Your task to perform on an android device: open app "Paramount+ | Peak Streaming" Image 0: 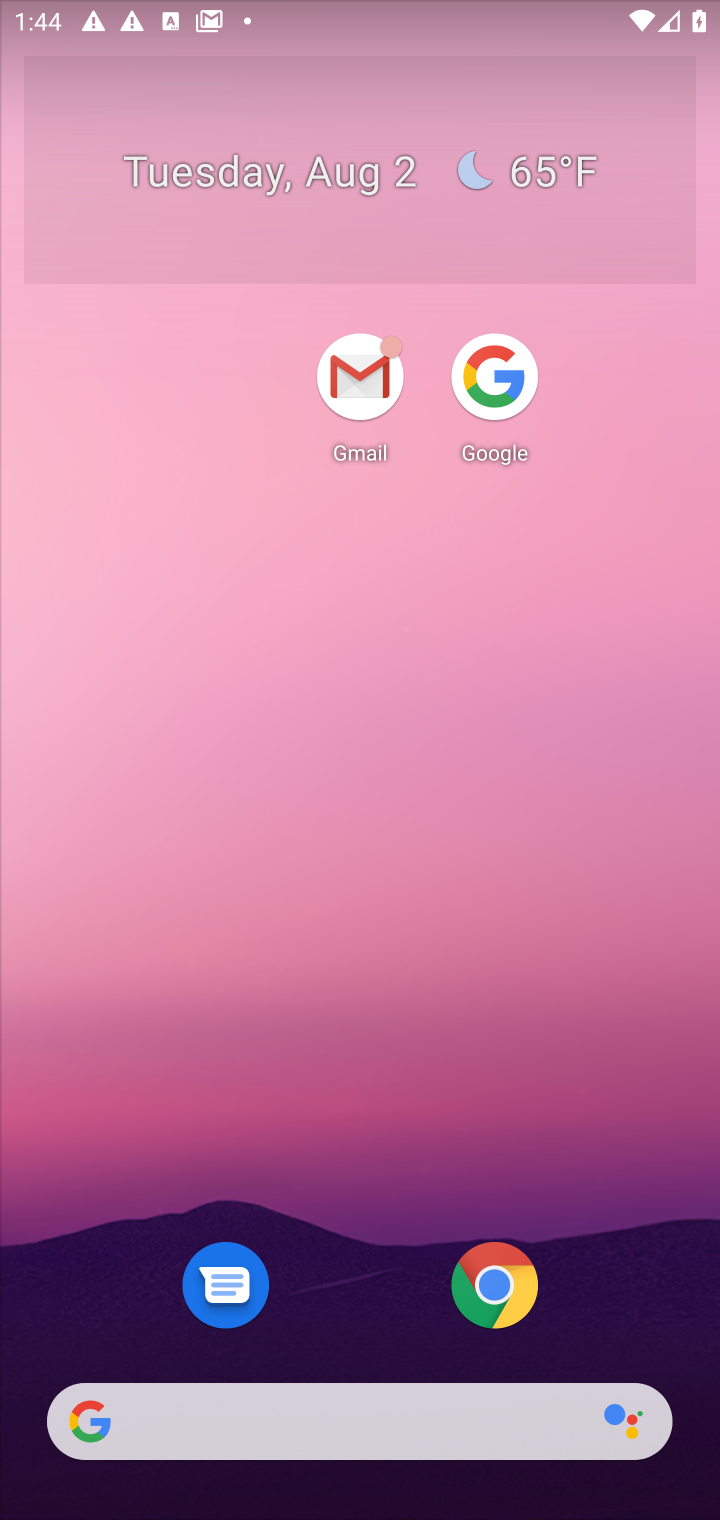
Step 0: drag from (560, 344) to (560, 2)
Your task to perform on an android device: open app "Paramount+ | Peak Streaming" Image 1: 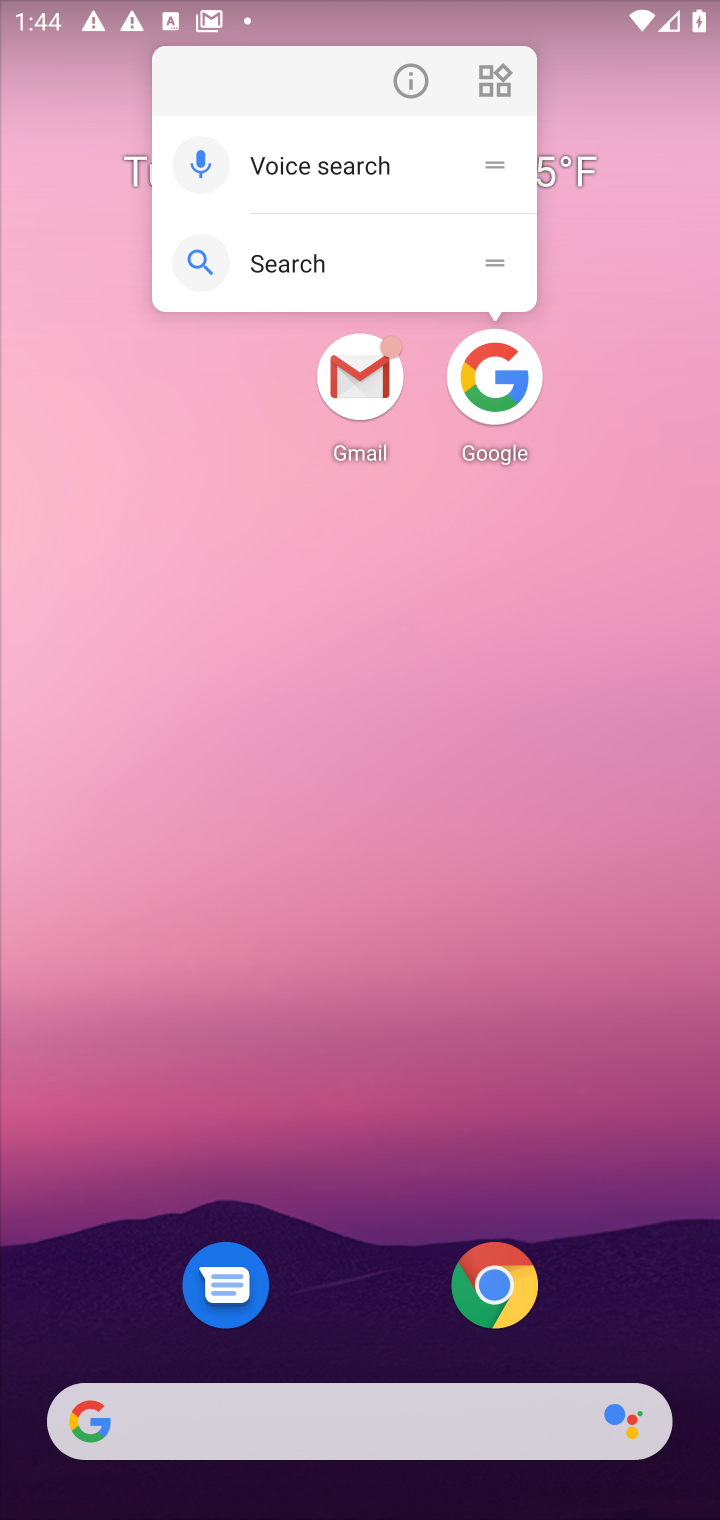
Step 1: click (539, 1028)
Your task to perform on an android device: open app "Paramount+ | Peak Streaming" Image 2: 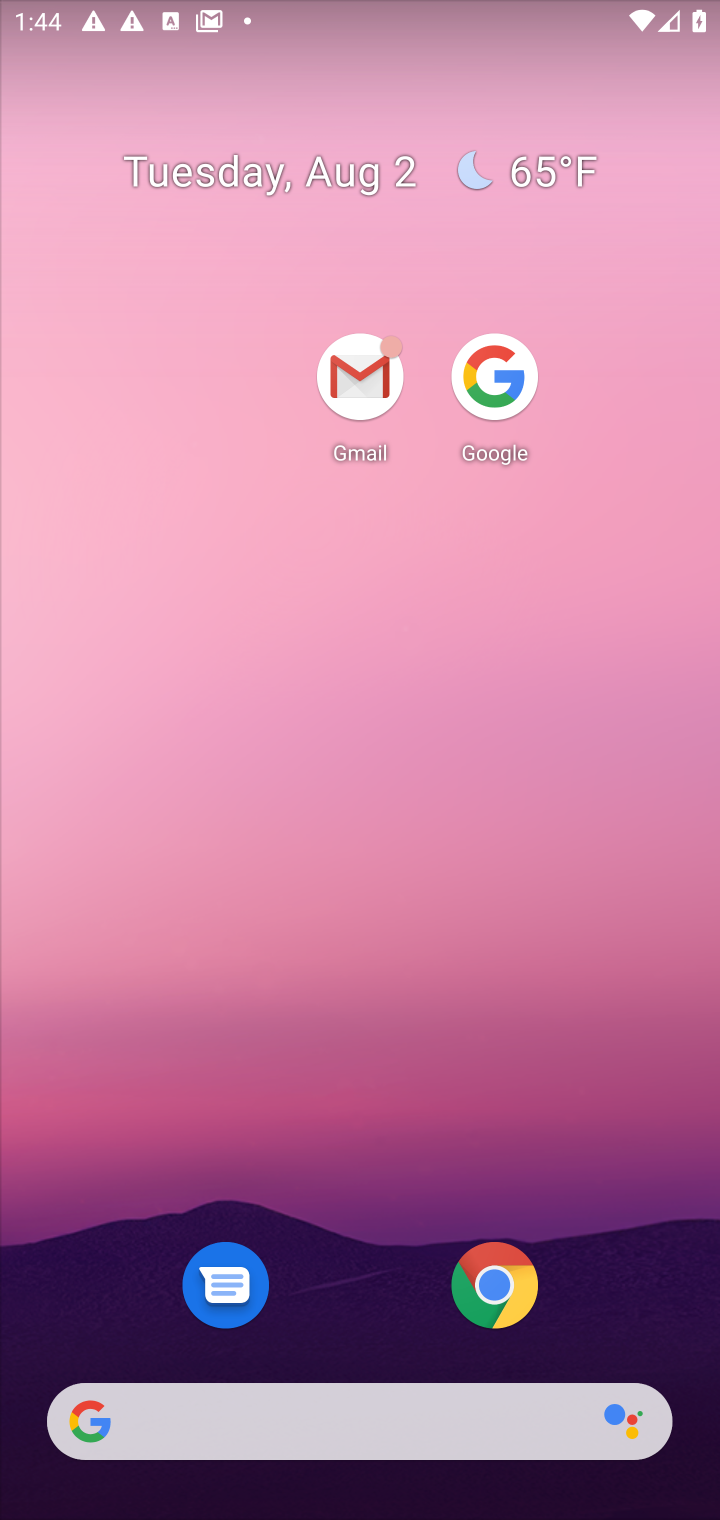
Step 2: drag from (542, 1178) to (596, 166)
Your task to perform on an android device: open app "Paramount+ | Peak Streaming" Image 3: 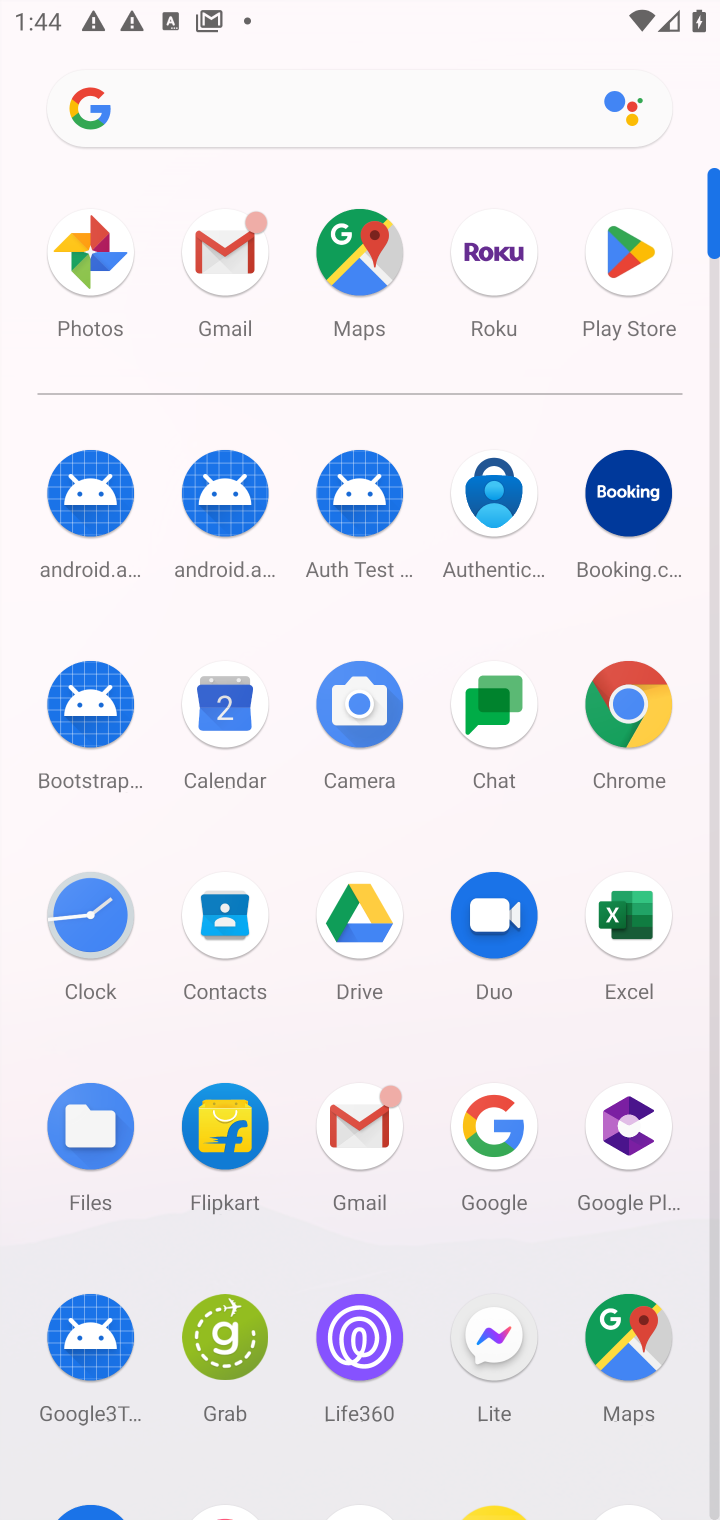
Step 3: drag from (421, 1216) to (469, 514)
Your task to perform on an android device: open app "Paramount+ | Peak Streaming" Image 4: 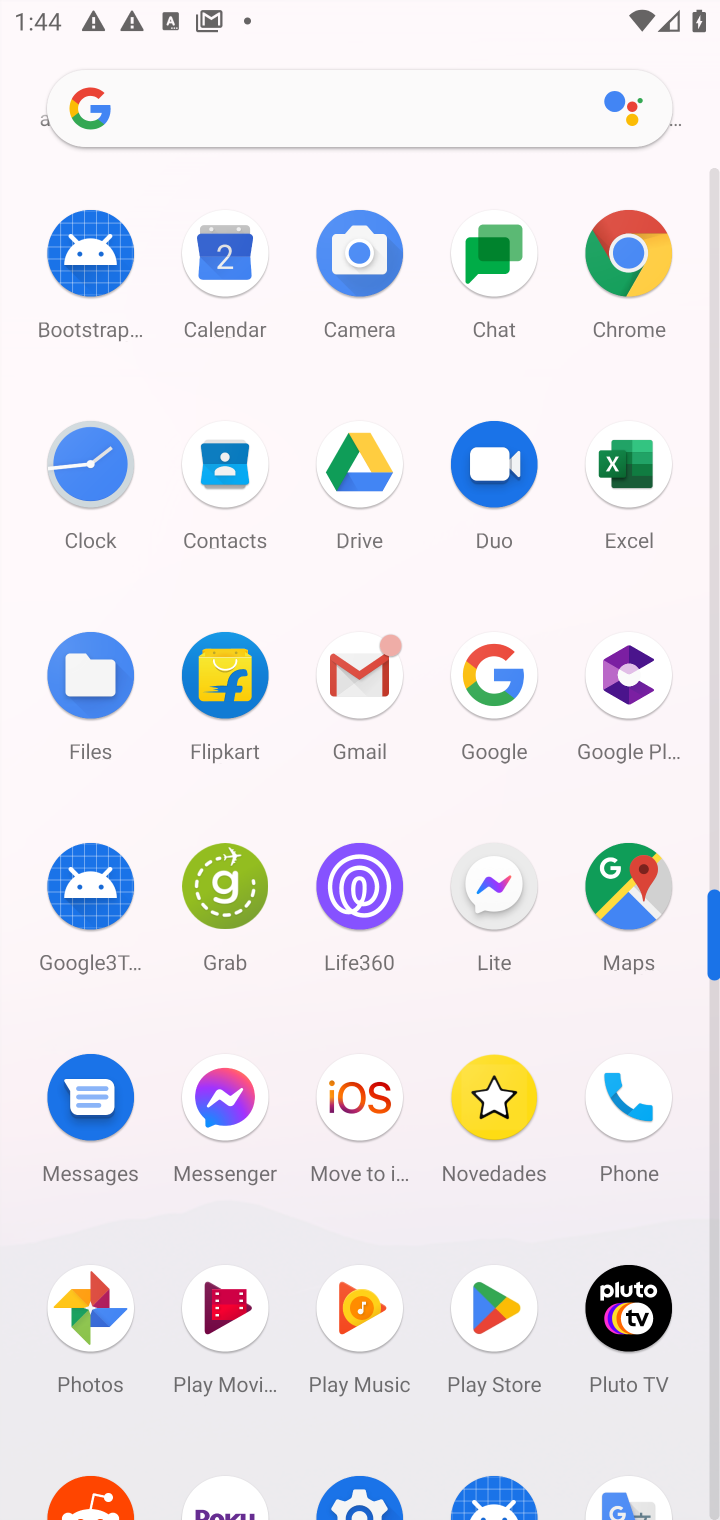
Step 4: click (499, 1319)
Your task to perform on an android device: open app "Paramount+ | Peak Streaming" Image 5: 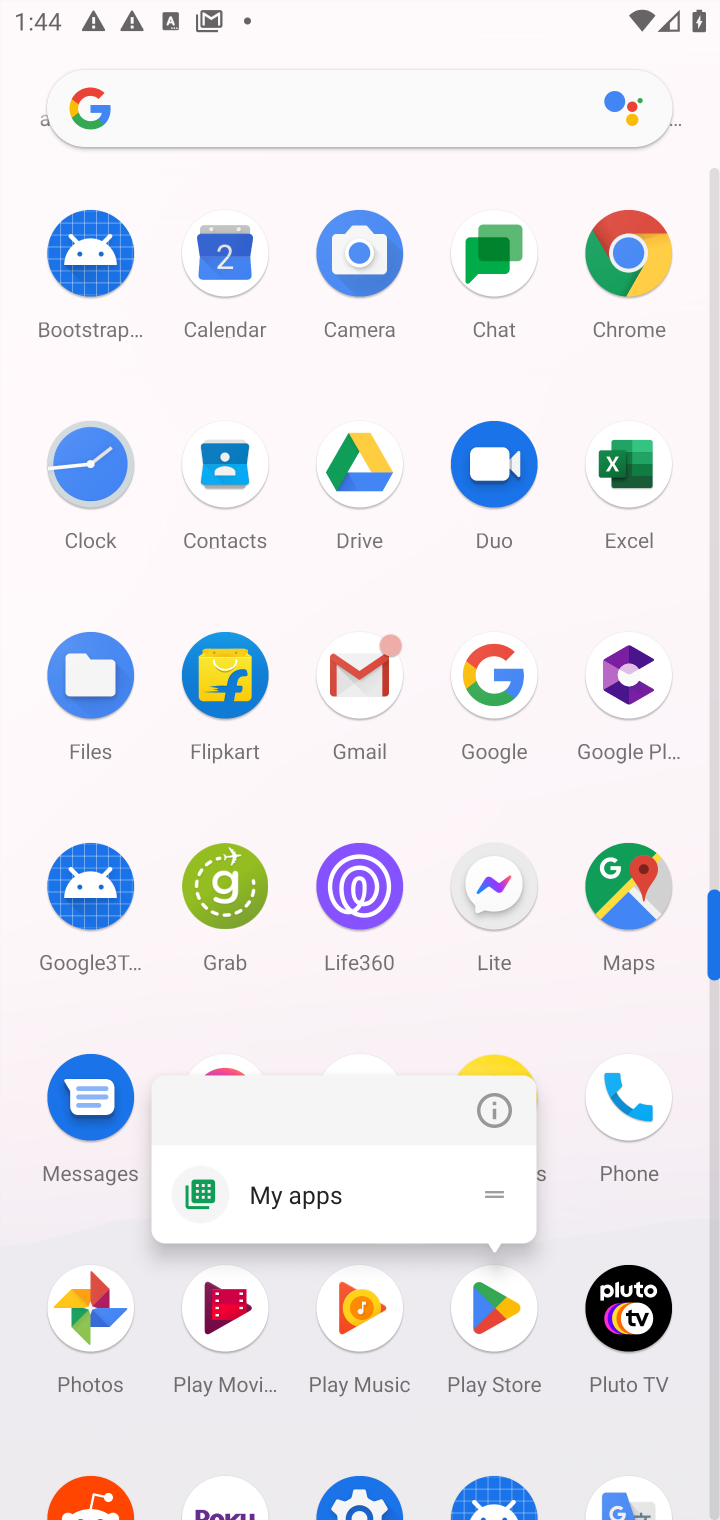
Step 5: click (483, 1319)
Your task to perform on an android device: open app "Paramount+ | Peak Streaming" Image 6: 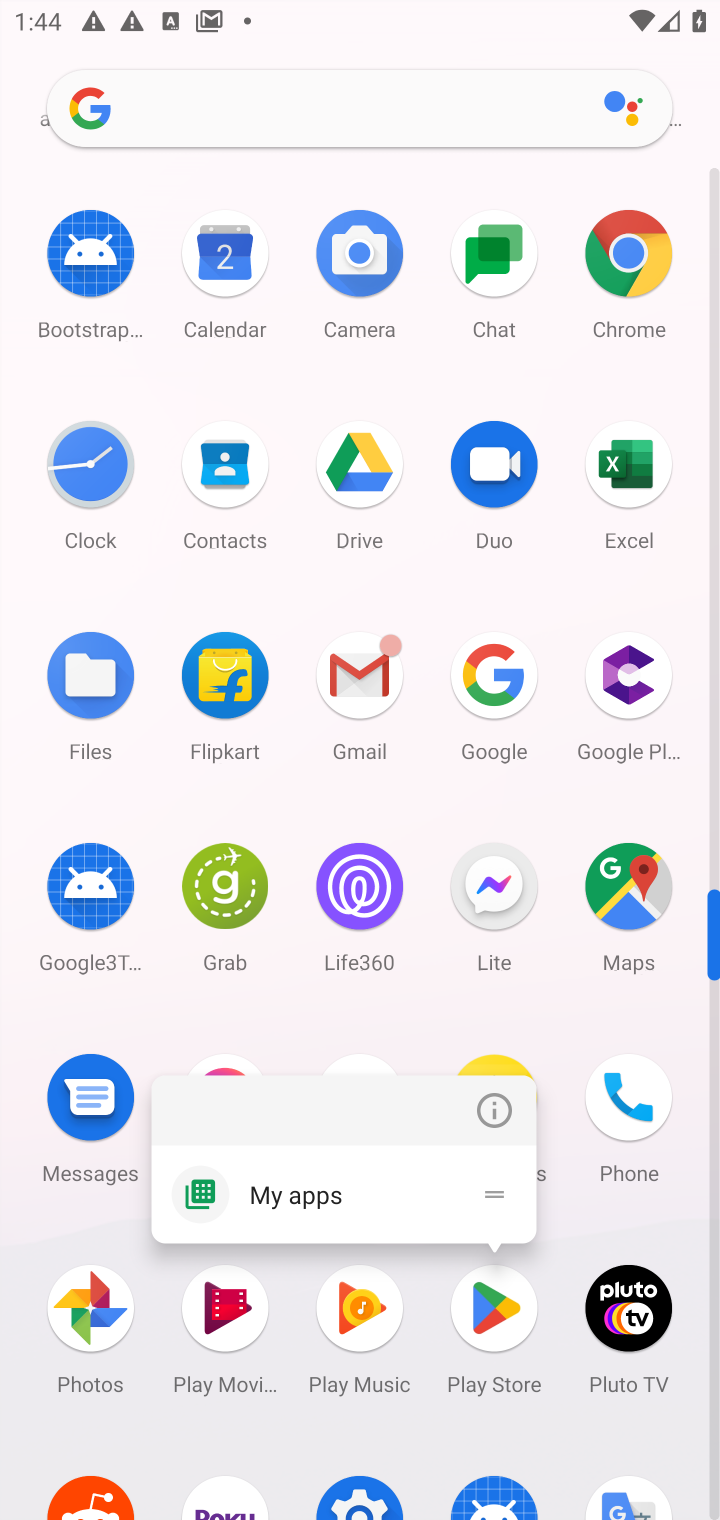
Step 6: click (487, 1327)
Your task to perform on an android device: open app "Paramount+ | Peak Streaming" Image 7: 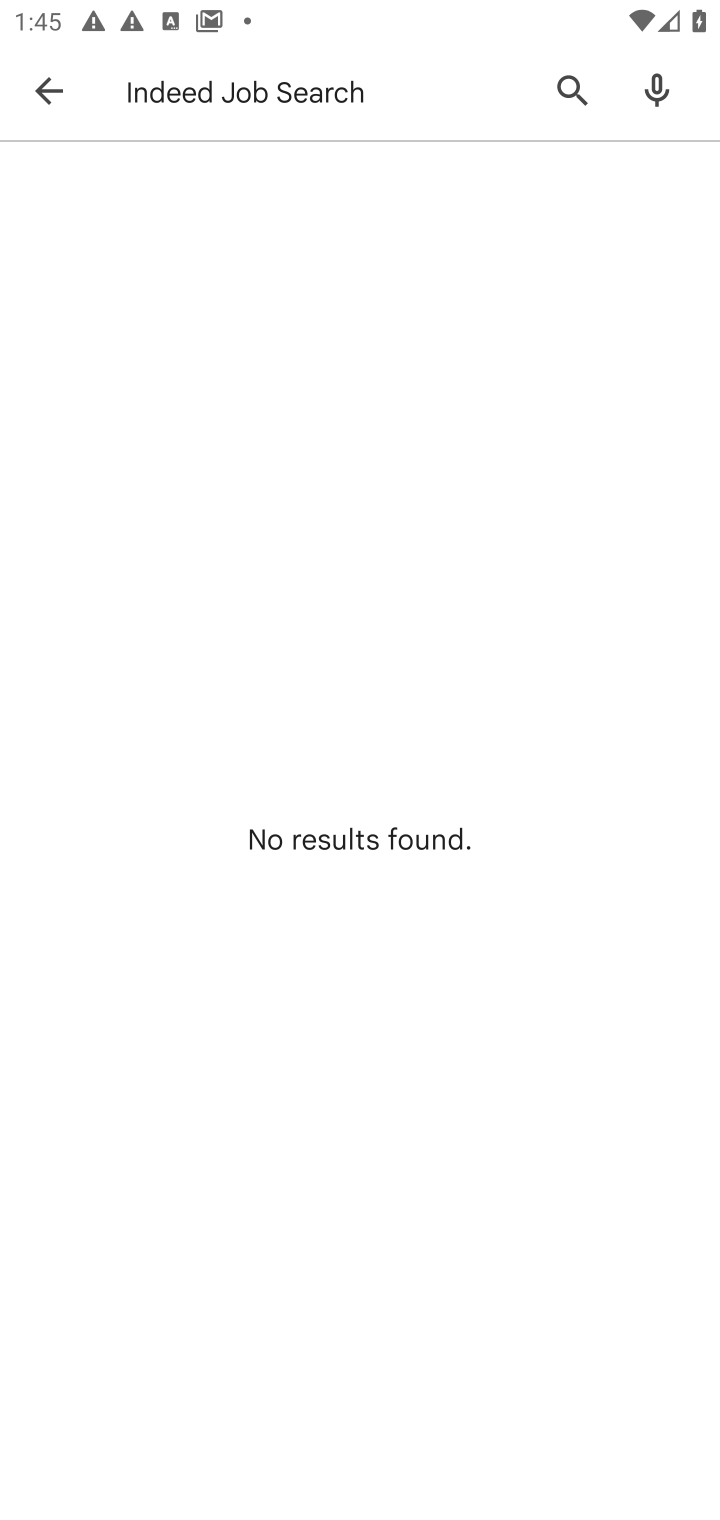
Step 7: click (363, 84)
Your task to perform on an android device: open app "Paramount+ | Peak Streaming" Image 8: 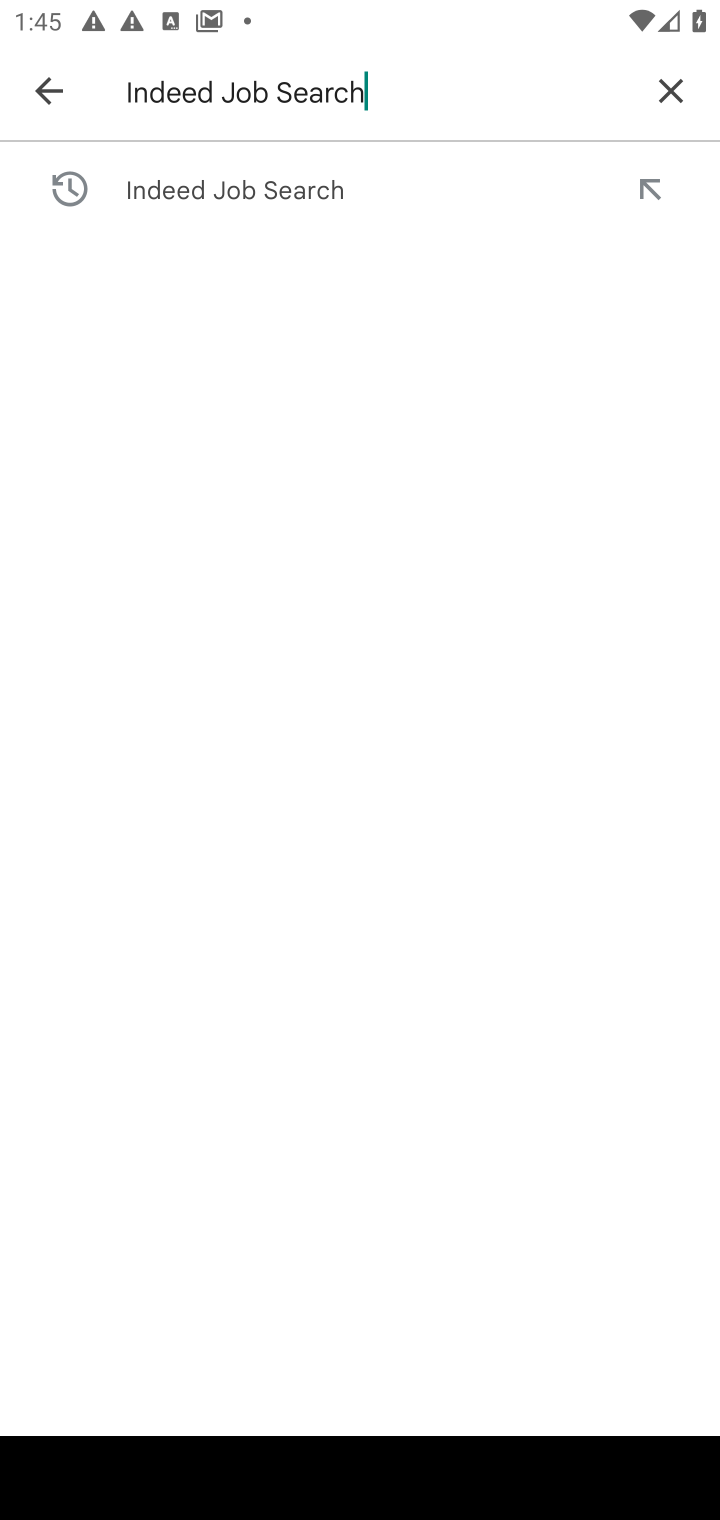
Step 8: click (670, 69)
Your task to perform on an android device: open app "Paramount+ | Peak Streaming" Image 9: 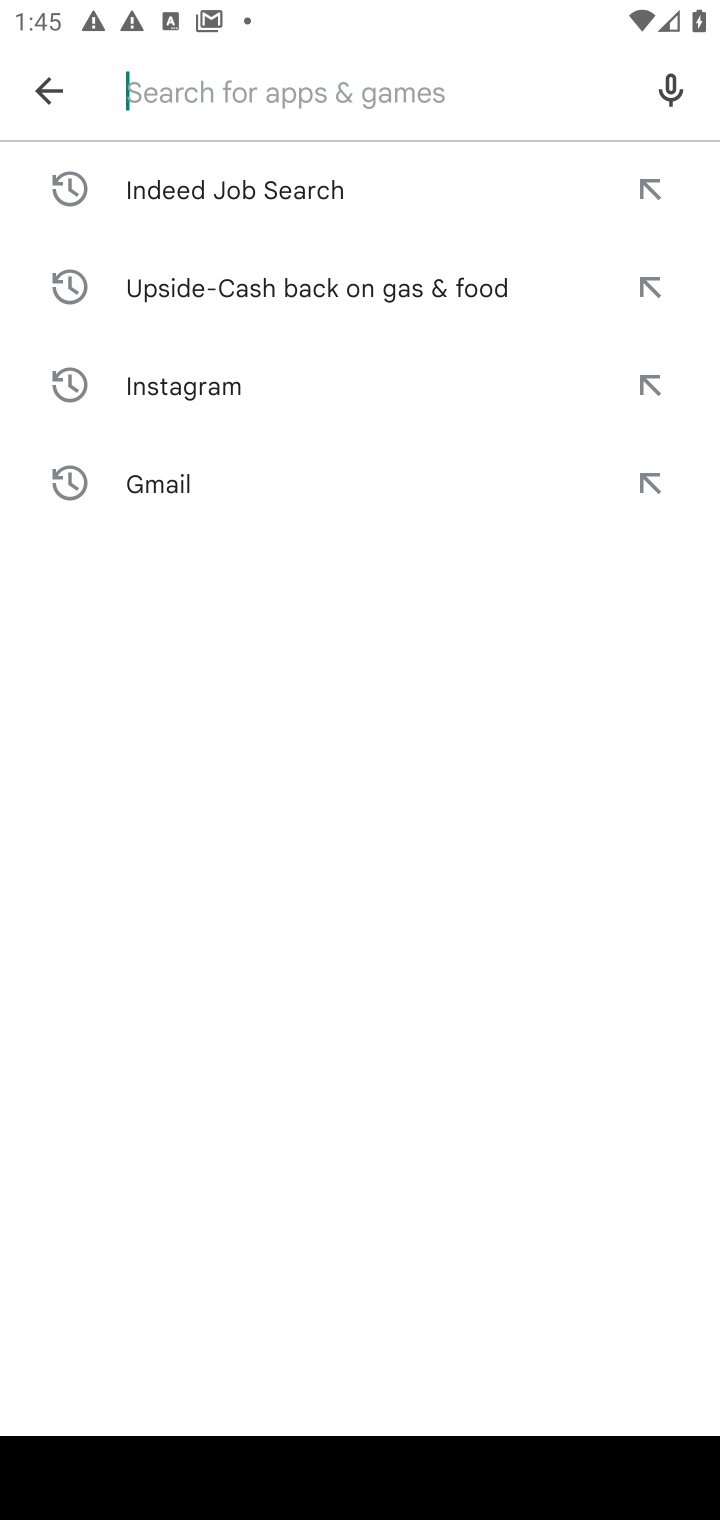
Step 9: type "Paramount+ | Peak Streaming"
Your task to perform on an android device: open app "Paramount+ | Peak Streaming" Image 10: 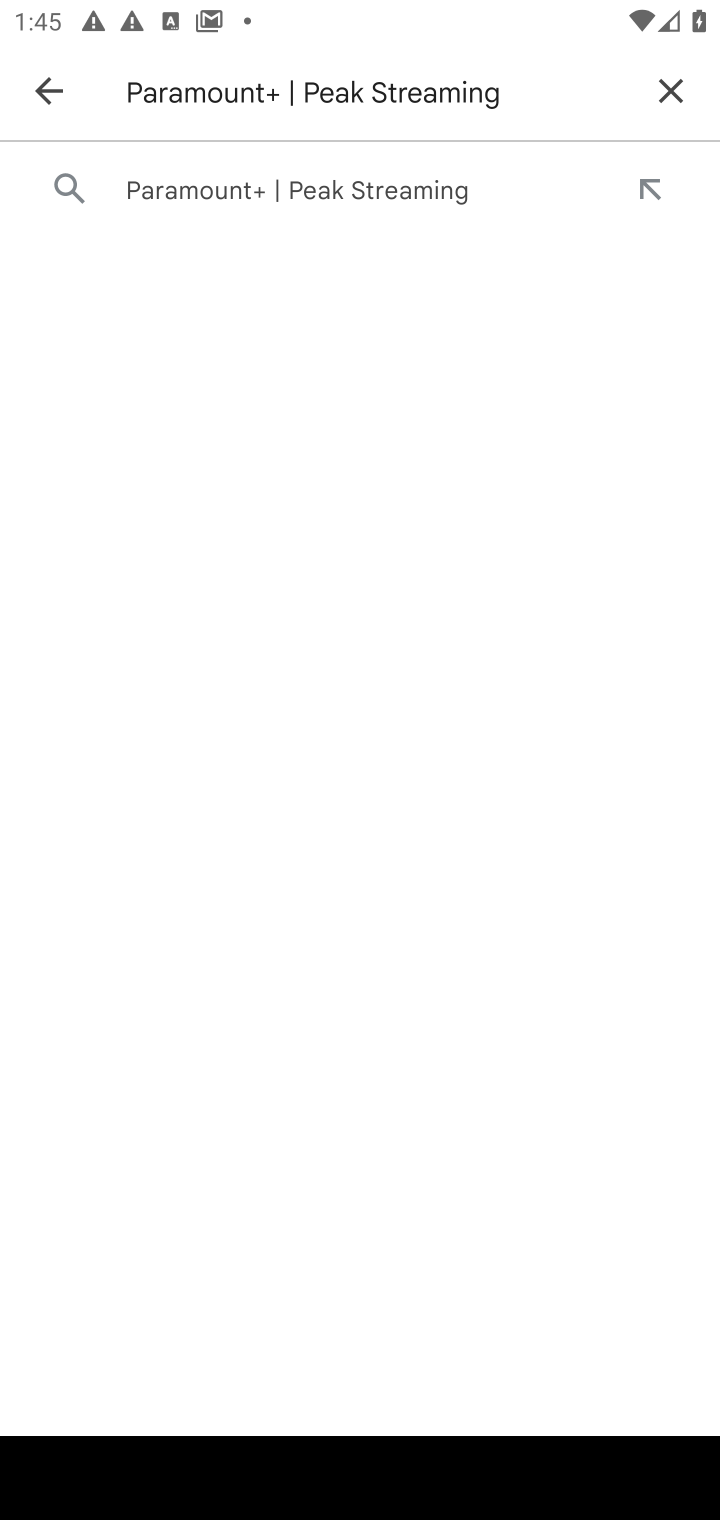
Step 10: press enter
Your task to perform on an android device: open app "Paramount+ | Peak Streaming" Image 11: 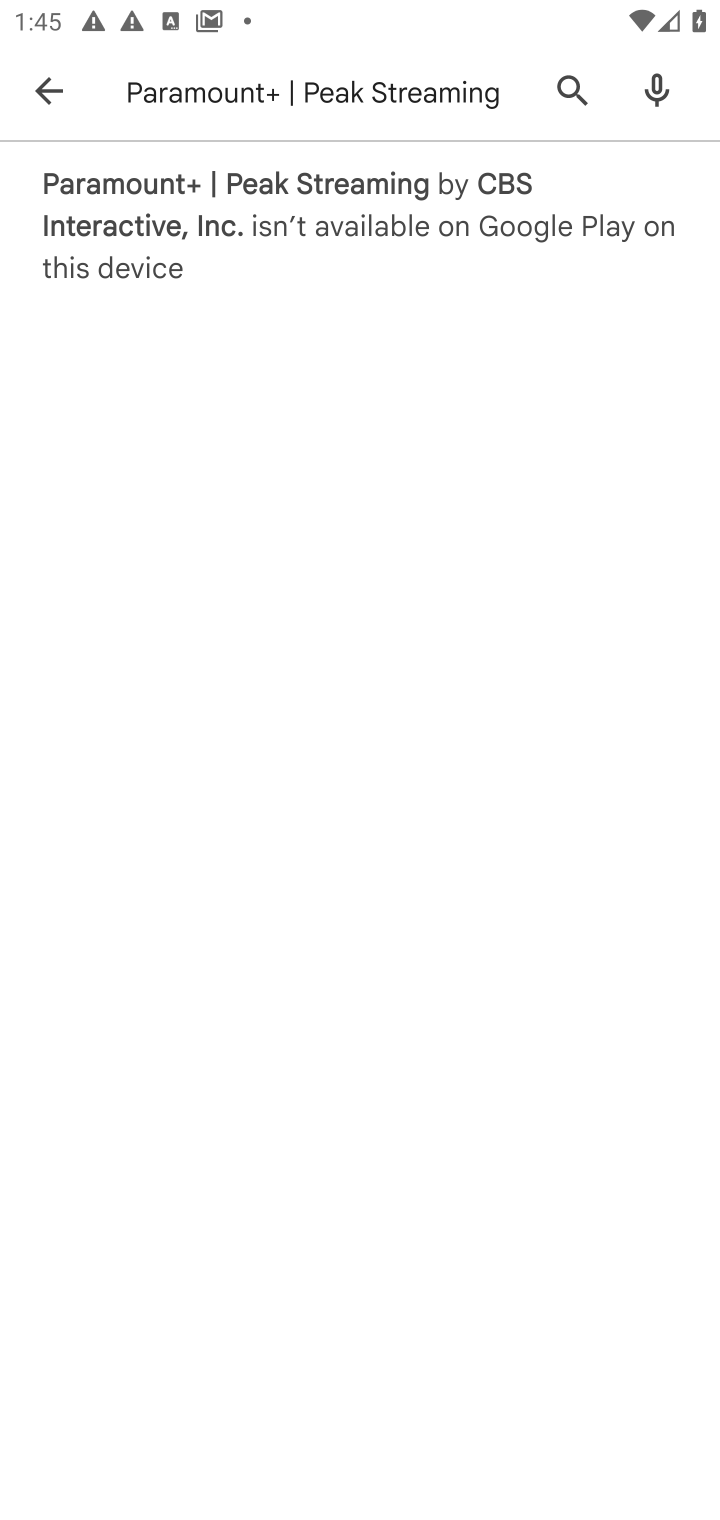
Step 11: task complete